Your task to perform on an android device: See recent photos Image 0: 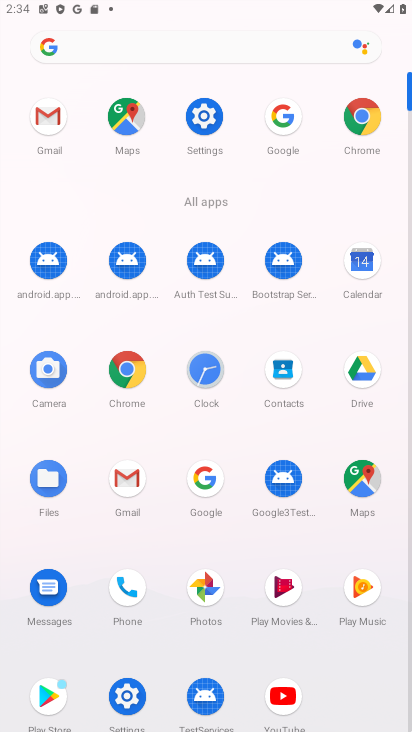
Step 0: click (209, 580)
Your task to perform on an android device: See recent photos Image 1: 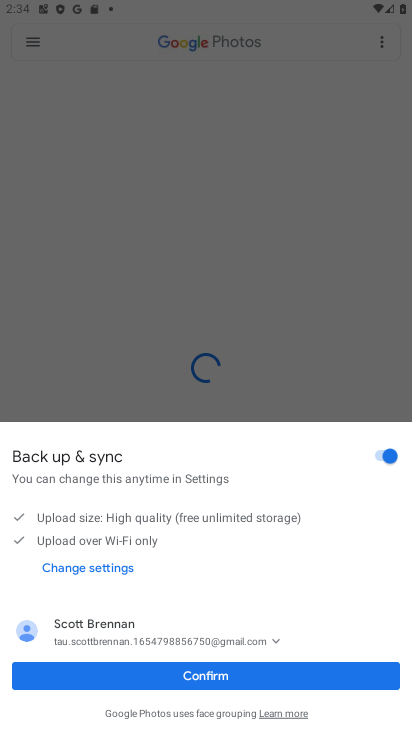
Step 1: click (208, 681)
Your task to perform on an android device: See recent photos Image 2: 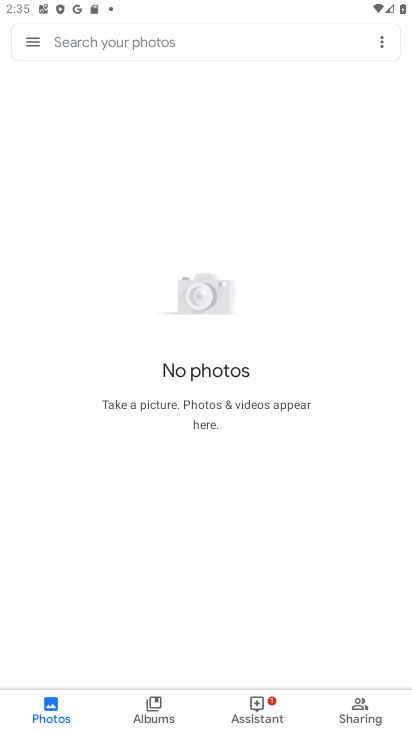
Step 2: task complete